Your task to perform on an android device: Open Chrome and go to the settings page Image 0: 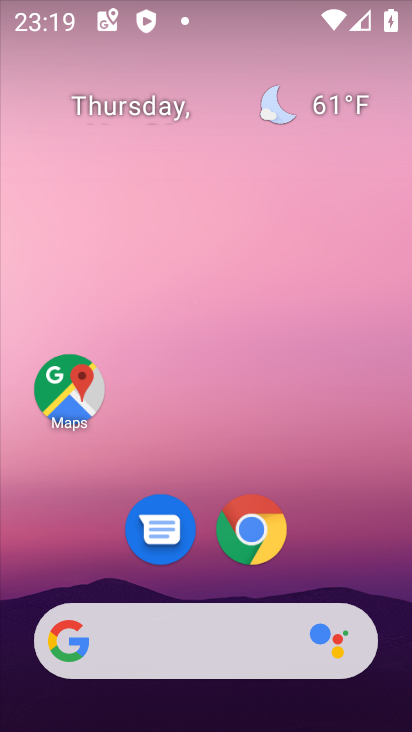
Step 0: click (351, 539)
Your task to perform on an android device: Open Chrome and go to the settings page Image 1: 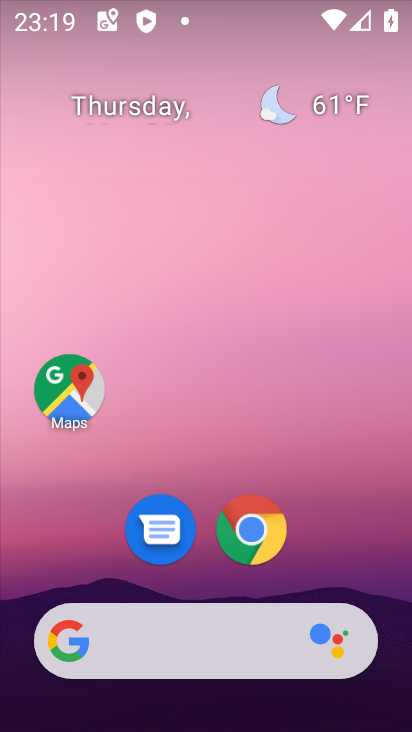
Step 1: click (270, 524)
Your task to perform on an android device: Open Chrome and go to the settings page Image 2: 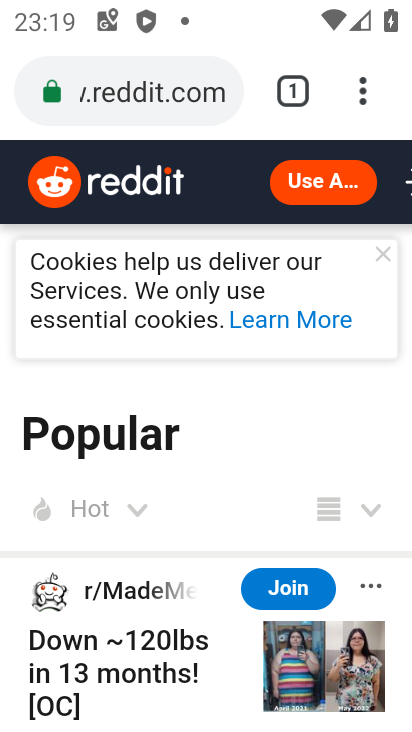
Step 2: click (352, 87)
Your task to perform on an android device: Open Chrome and go to the settings page Image 3: 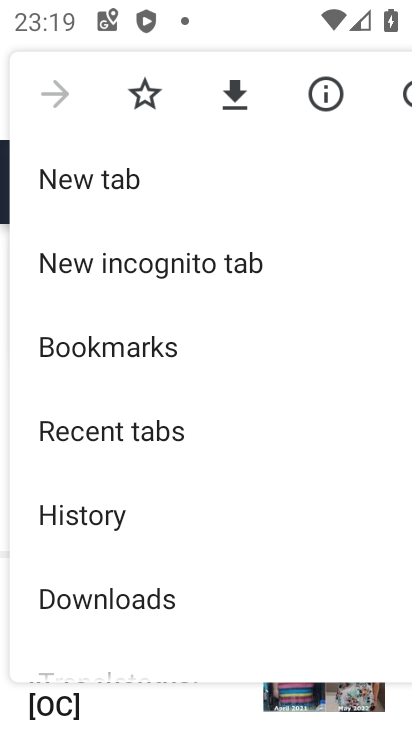
Step 3: drag from (201, 507) to (188, 219)
Your task to perform on an android device: Open Chrome and go to the settings page Image 4: 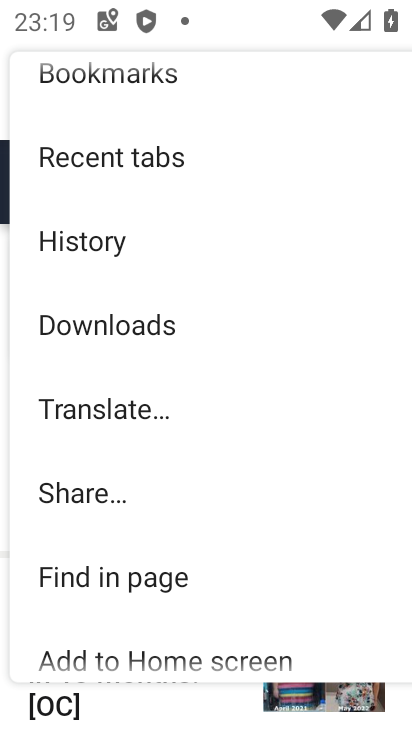
Step 4: drag from (170, 576) to (179, 267)
Your task to perform on an android device: Open Chrome and go to the settings page Image 5: 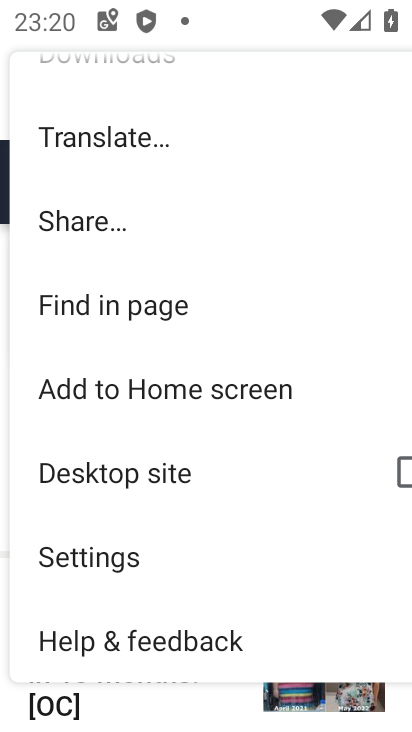
Step 5: click (114, 541)
Your task to perform on an android device: Open Chrome and go to the settings page Image 6: 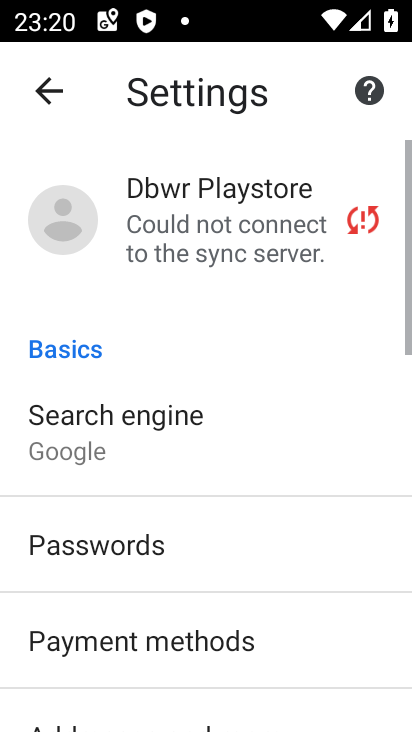
Step 6: task complete